Your task to perform on an android device: toggle priority inbox in the gmail app Image 0: 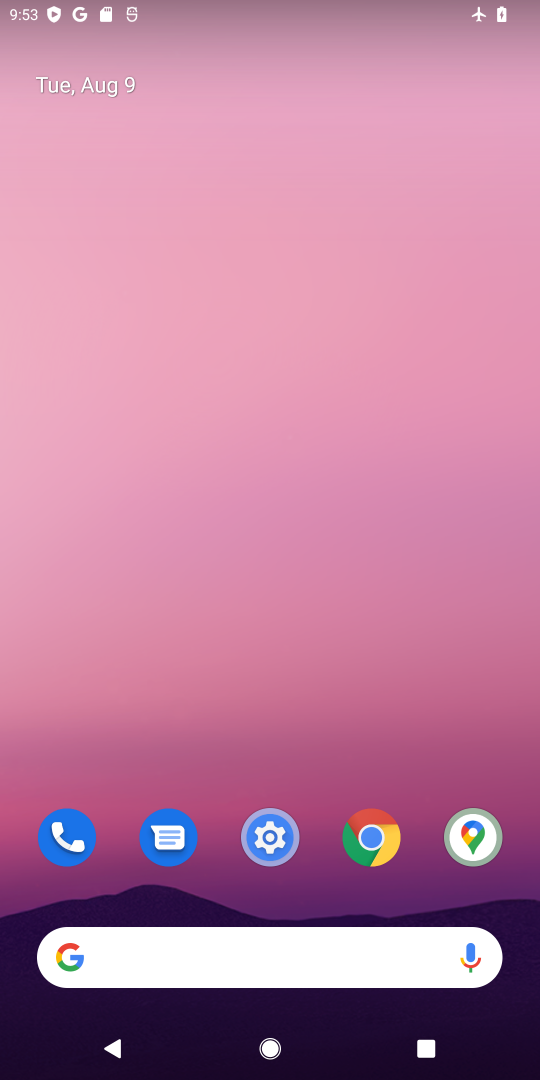
Step 0: drag from (329, 873) to (331, 191)
Your task to perform on an android device: toggle priority inbox in the gmail app Image 1: 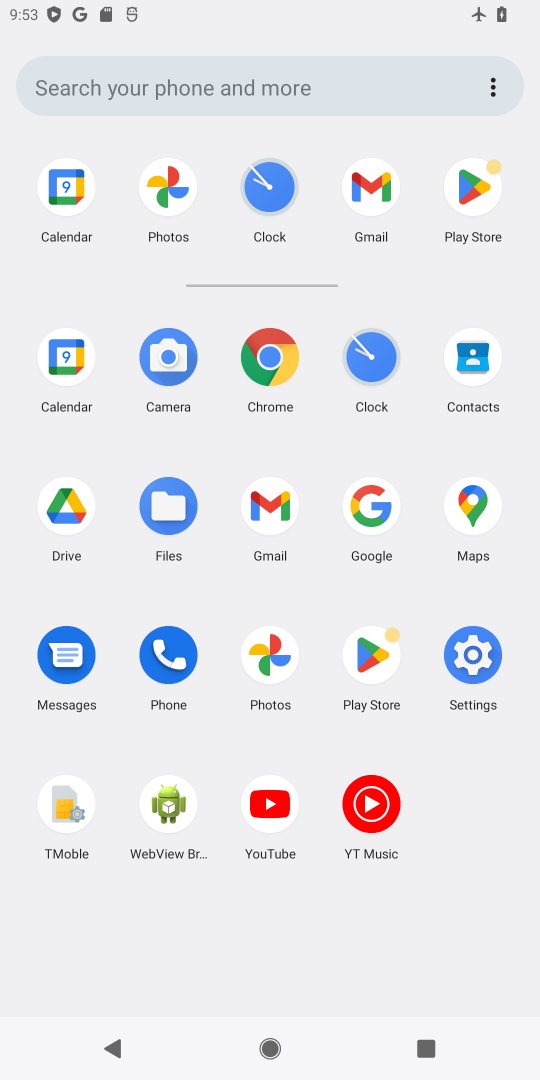
Step 1: click (272, 513)
Your task to perform on an android device: toggle priority inbox in the gmail app Image 2: 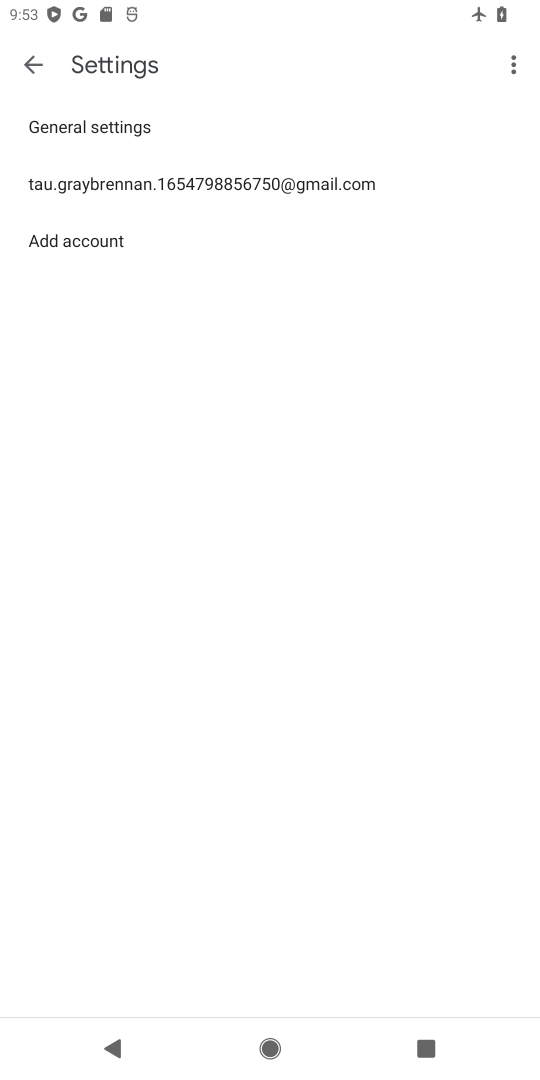
Step 2: click (201, 187)
Your task to perform on an android device: toggle priority inbox in the gmail app Image 3: 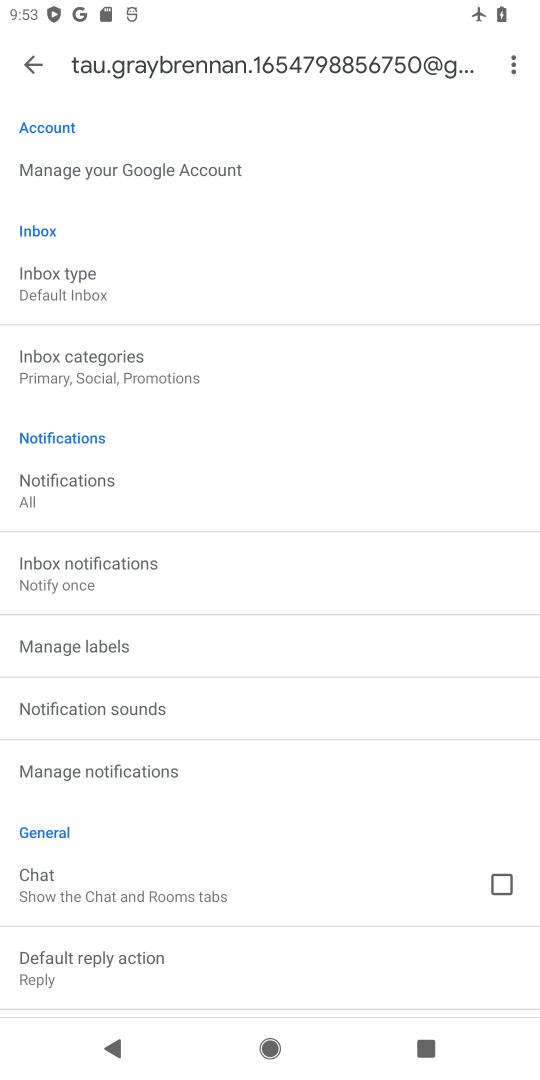
Step 3: click (53, 279)
Your task to perform on an android device: toggle priority inbox in the gmail app Image 4: 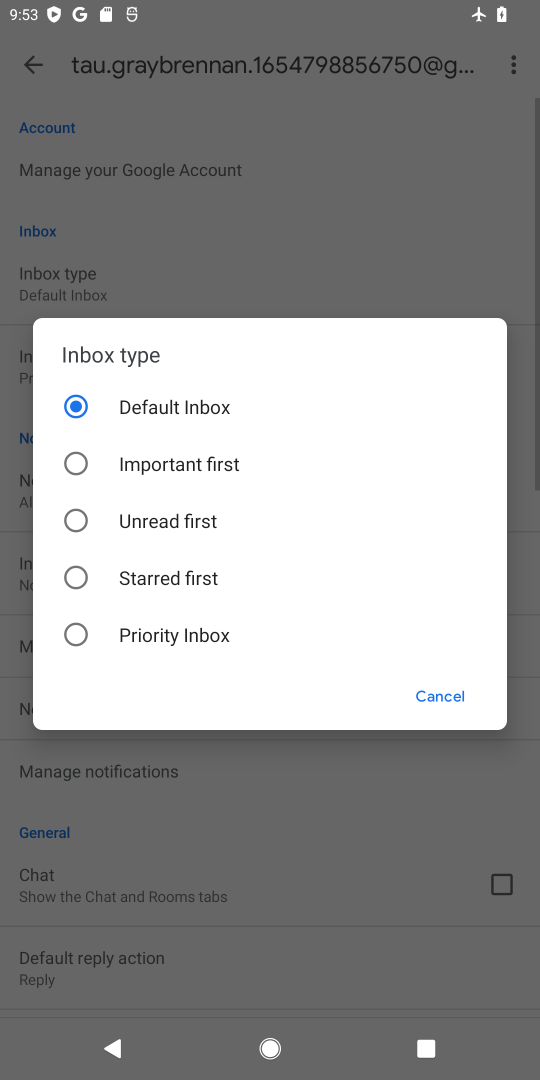
Step 4: click (73, 643)
Your task to perform on an android device: toggle priority inbox in the gmail app Image 5: 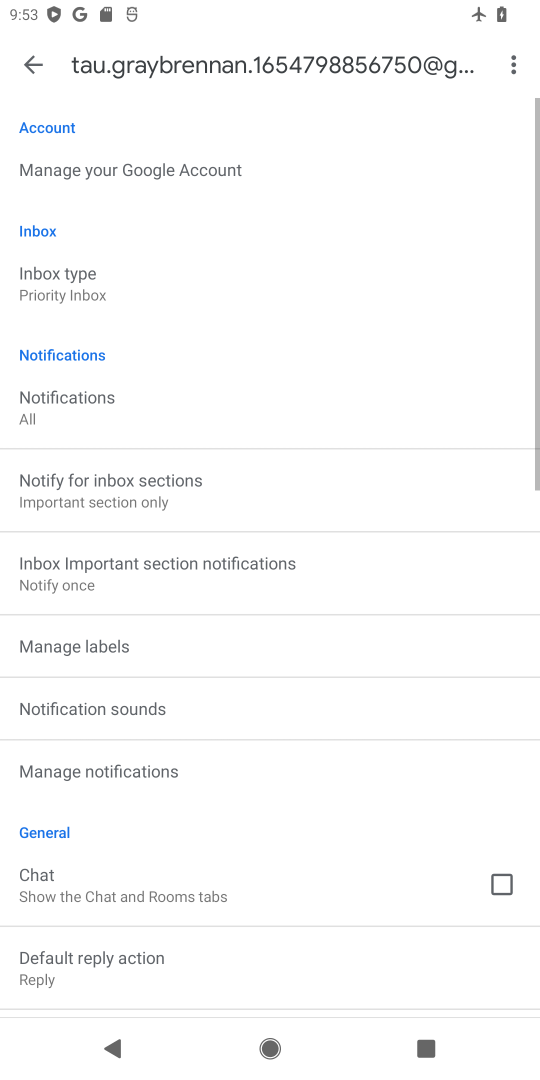
Step 5: task complete